Your task to perform on an android device: Is it going to rain today? Image 0: 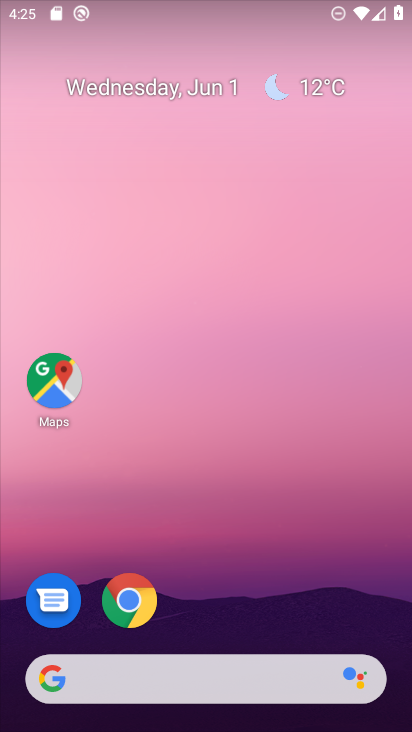
Step 0: click (326, 87)
Your task to perform on an android device: Is it going to rain today? Image 1: 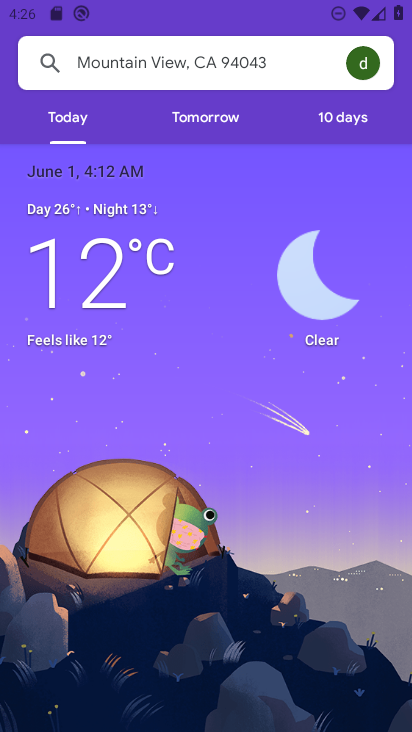
Step 1: task complete